Your task to perform on an android device: check storage Image 0: 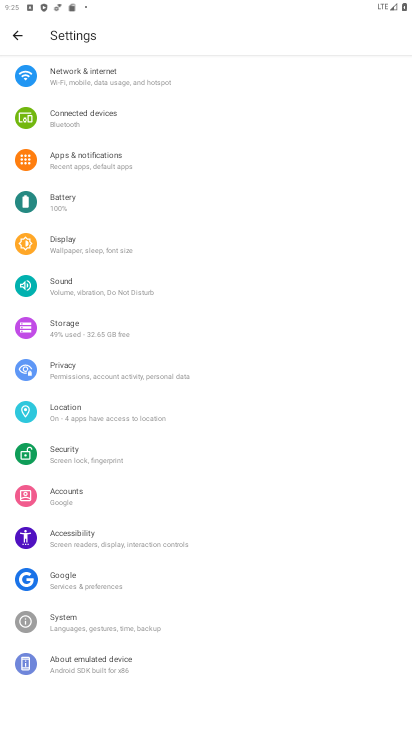
Step 0: click (63, 325)
Your task to perform on an android device: check storage Image 1: 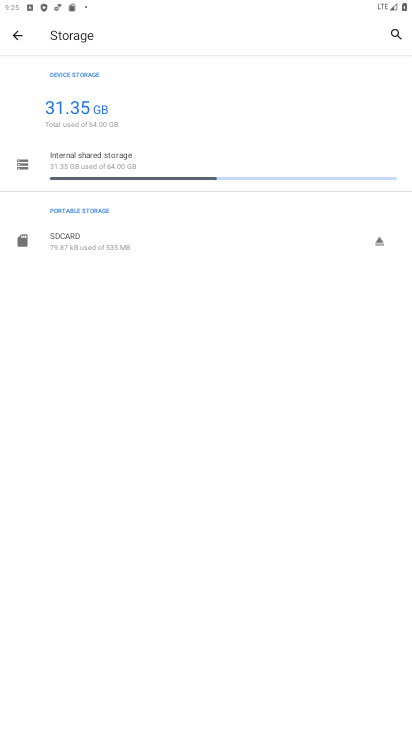
Step 1: task complete